Your task to perform on an android device: Show me the top rated dinnerware on Crate & Barrel Image 0: 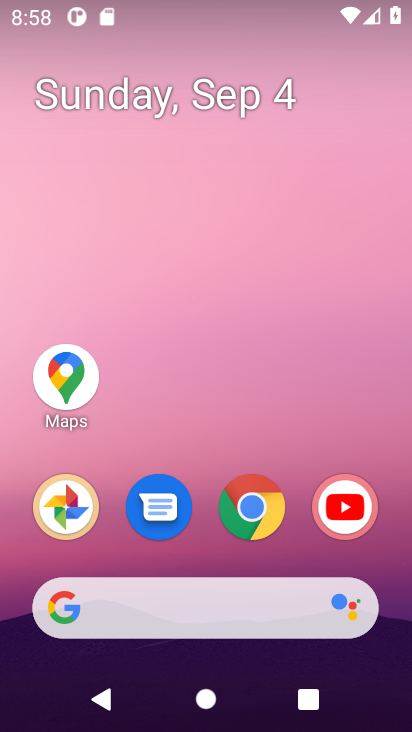
Step 0: click (255, 505)
Your task to perform on an android device: Show me the top rated dinnerware on Crate & Barrel Image 1: 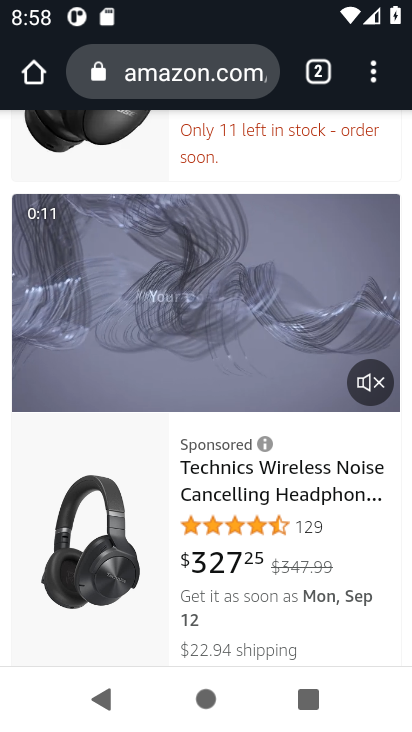
Step 1: click (181, 52)
Your task to perform on an android device: Show me the top rated dinnerware on Crate & Barrel Image 2: 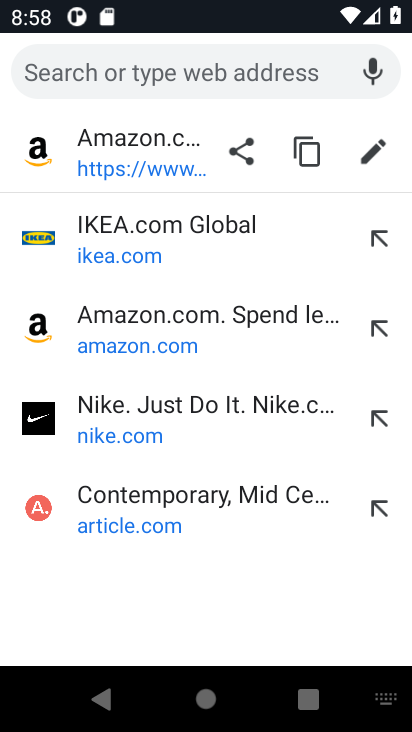
Step 2: type "Crate & Barrel"
Your task to perform on an android device: Show me the top rated dinnerware on Crate & Barrel Image 3: 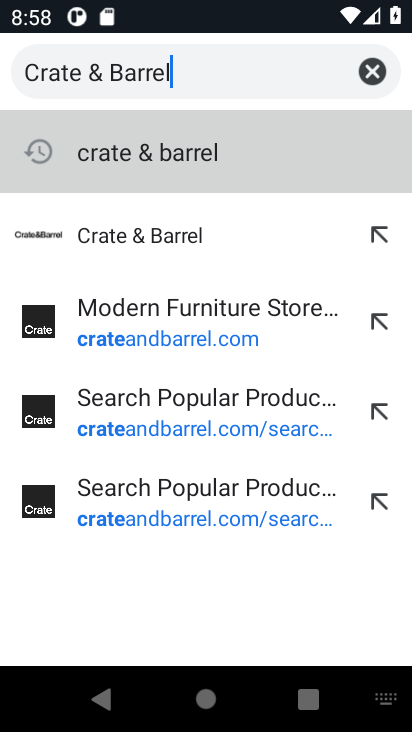
Step 3: click (132, 245)
Your task to perform on an android device: Show me the top rated dinnerware on Crate & Barrel Image 4: 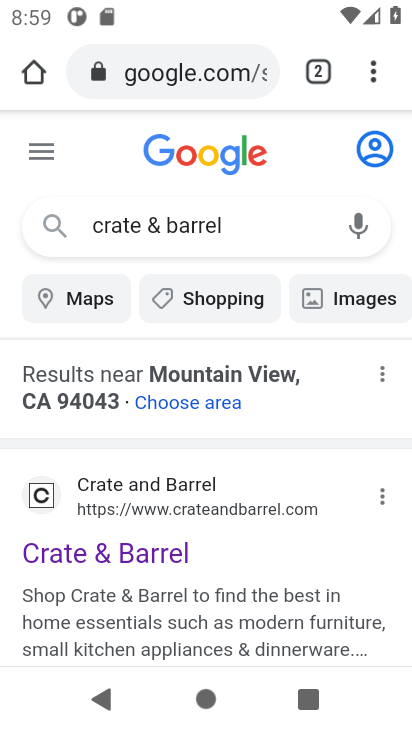
Step 4: click (76, 545)
Your task to perform on an android device: Show me the top rated dinnerware on Crate & Barrel Image 5: 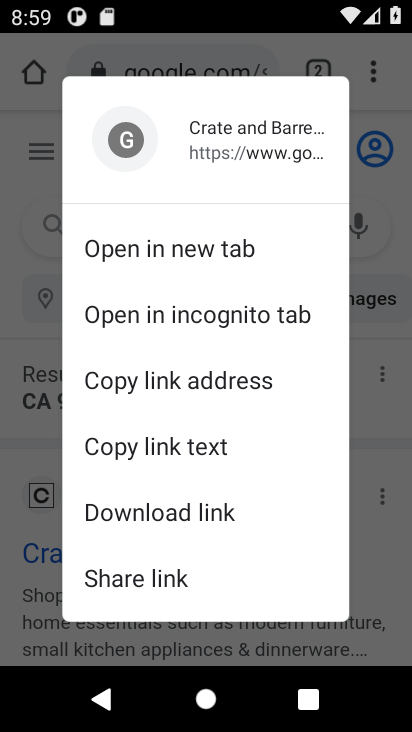
Step 5: click (39, 553)
Your task to perform on an android device: Show me the top rated dinnerware on Crate & Barrel Image 6: 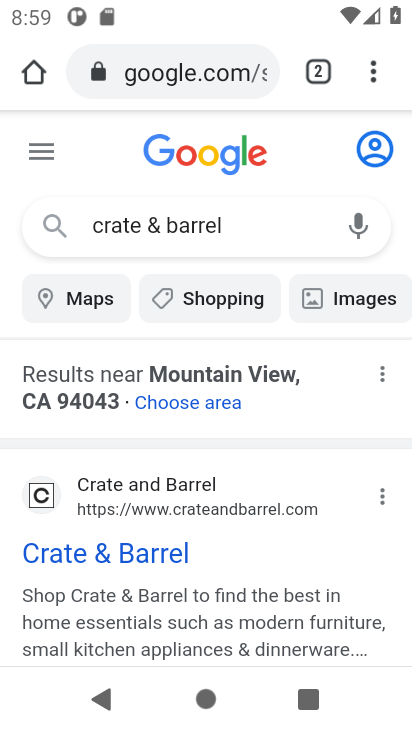
Step 6: click (121, 565)
Your task to perform on an android device: Show me the top rated dinnerware on Crate & Barrel Image 7: 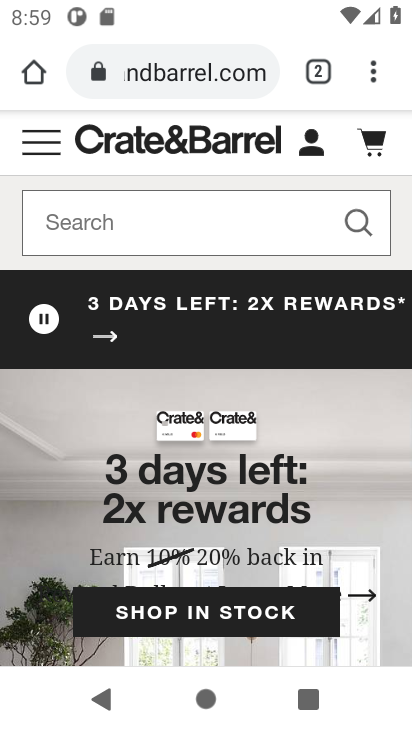
Step 7: click (87, 219)
Your task to perform on an android device: Show me the top rated dinnerware on Crate & Barrel Image 8: 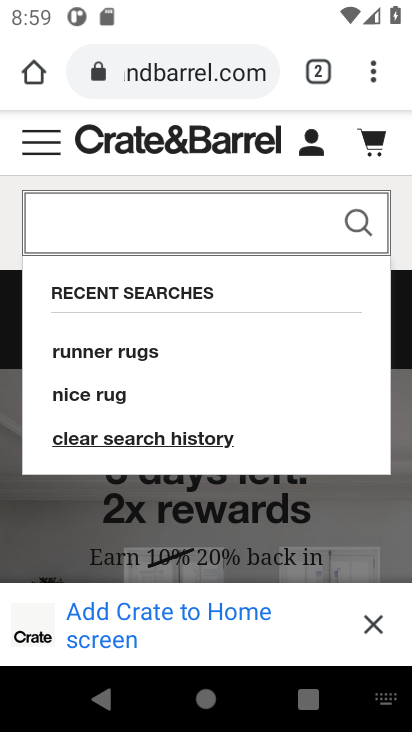
Step 8: type " top rated dinnerware"
Your task to perform on an android device: Show me the top rated dinnerware on Crate & Barrel Image 9: 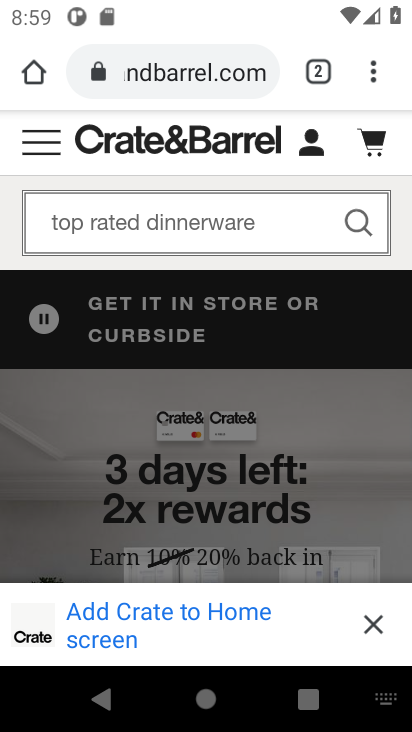
Step 9: click (364, 221)
Your task to perform on an android device: Show me the top rated dinnerware on Crate & Barrel Image 10: 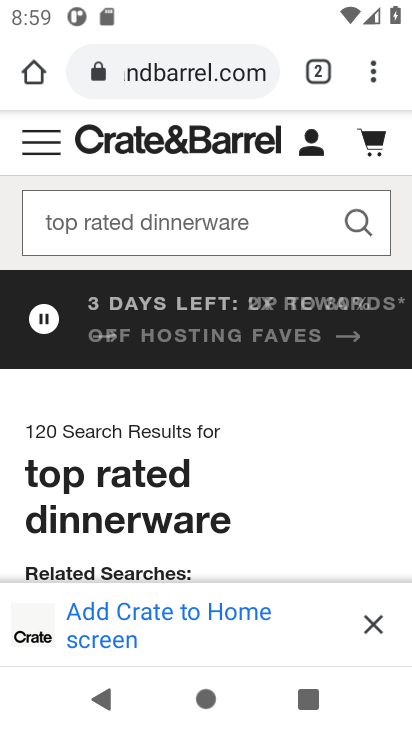
Step 10: task complete